Your task to perform on an android device: Open battery settings Image 0: 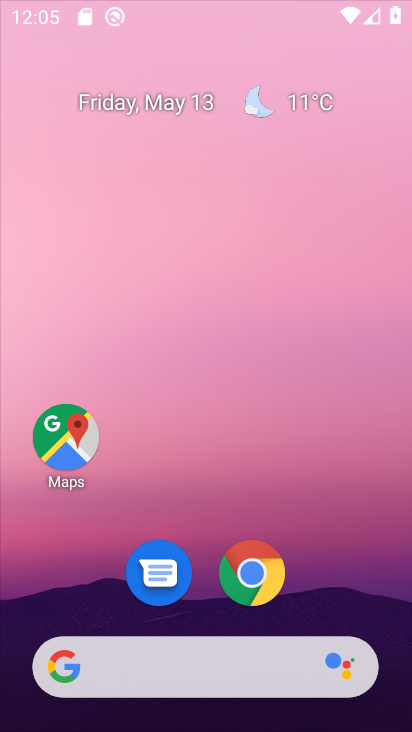
Step 0: click (298, 72)
Your task to perform on an android device: Open battery settings Image 1: 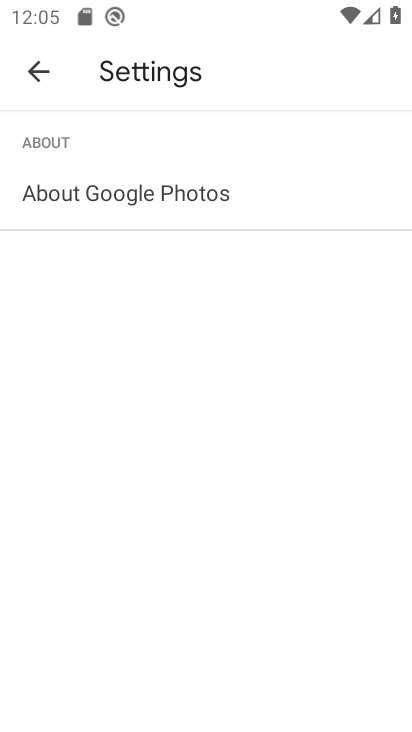
Step 1: press home button
Your task to perform on an android device: Open battery settings Image 2: 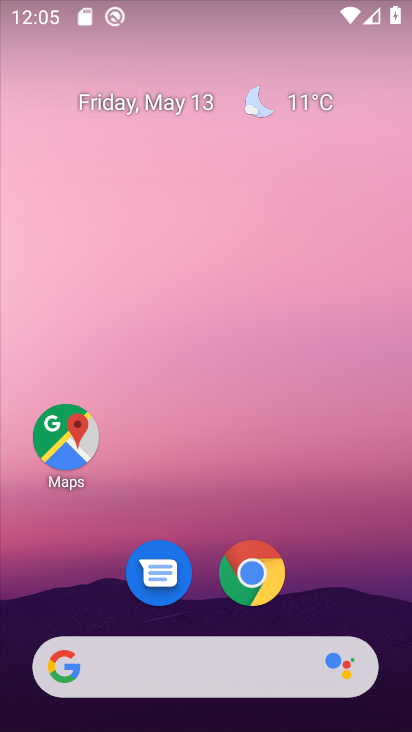
Step 2: drag from (330, 579) to (271, 6)
Your task to perform on an android device: Open battery settings Image 3: 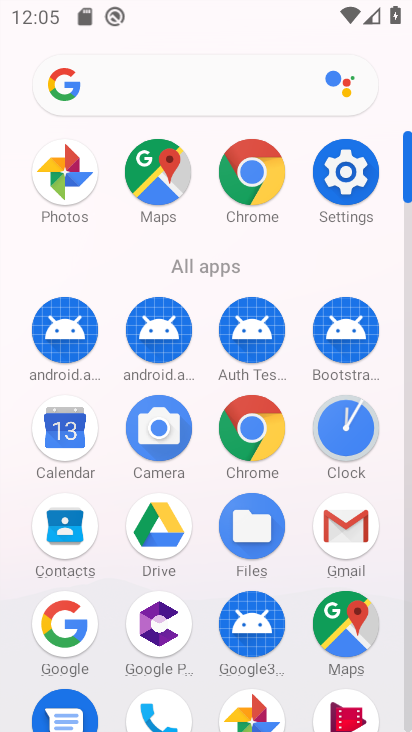
Step 3: click (343, 198)
Your task to perform on an android device: Open battery settings Image 4: 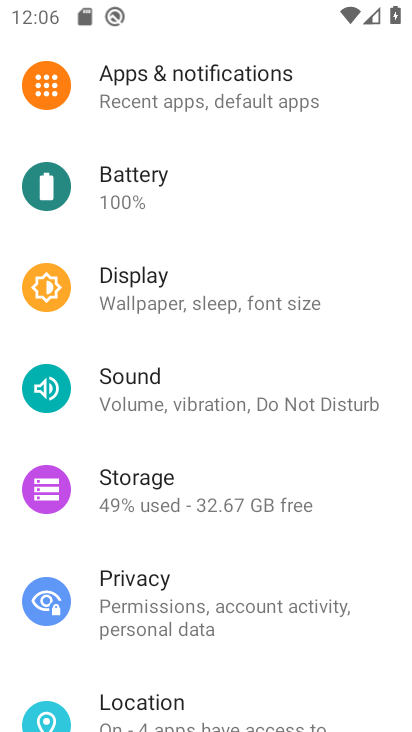
Step 4: click (121, 204)
Your task to perform on an android device: Open battery settings Image 5: 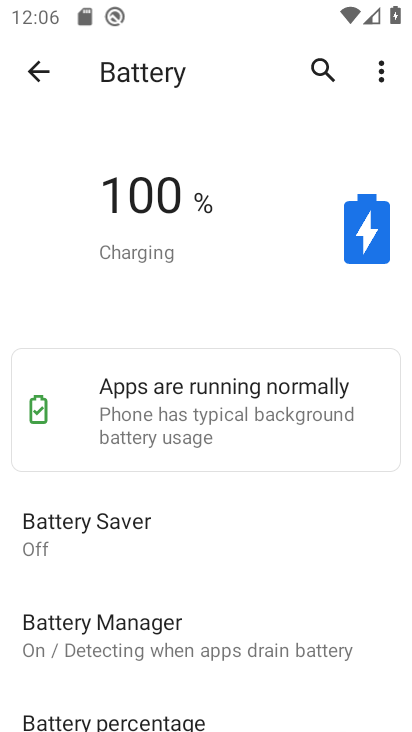
Step 5: task complete